Your task to perform on an android device: Go to network settings Image 0: 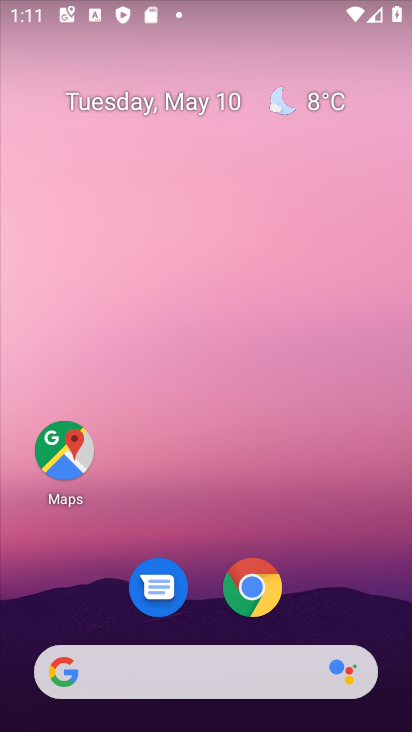
Step 0: drag from (392, 513) to (388, 309)
Your task to perform on an android device: Go to network settings Image 1: 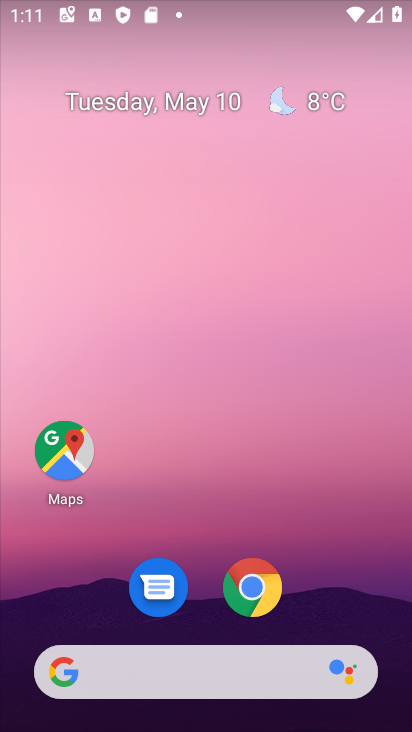
Step 1: drag from (386, 674) to (392, 203)
Your task to perform on an android device: Go to network settings Image 2: 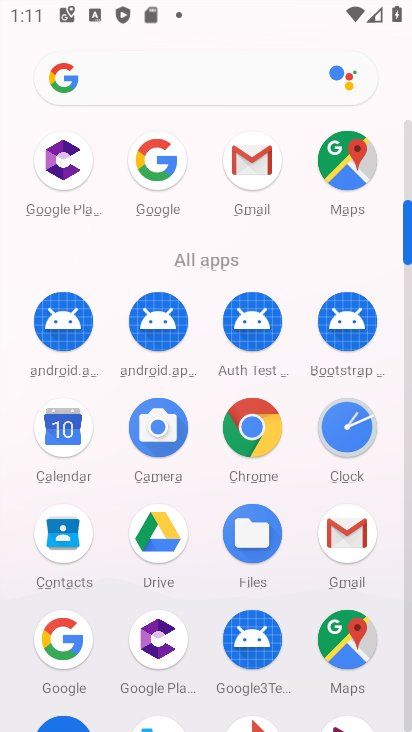
Step 2: drag from (409, 210) to (412, 147)
Your task to perform on an android device: Go to network settings Image 3: 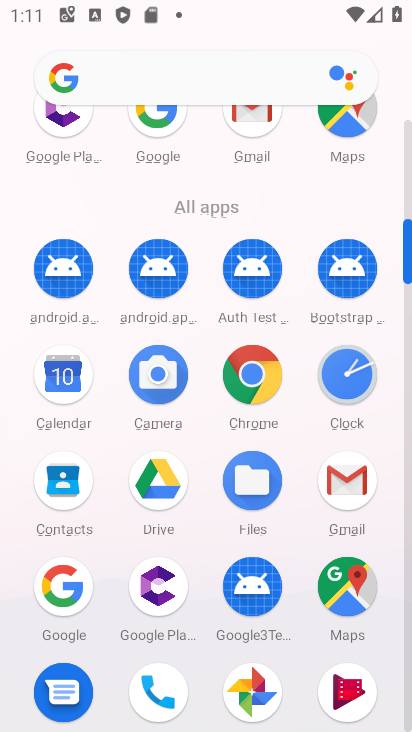
Step 3: click (410, 226)
Your task to perform on an android device: Go to network settings Image 4: 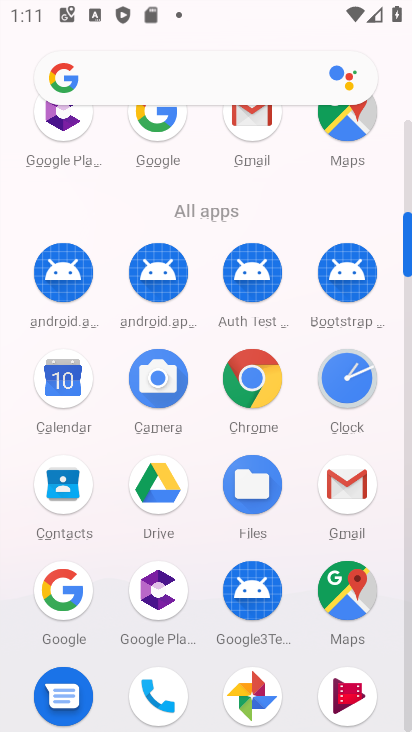
Step 4: drag from (408, 221) to (408, 135)
Your task to perform on an android device: Go to network settings Image 5: 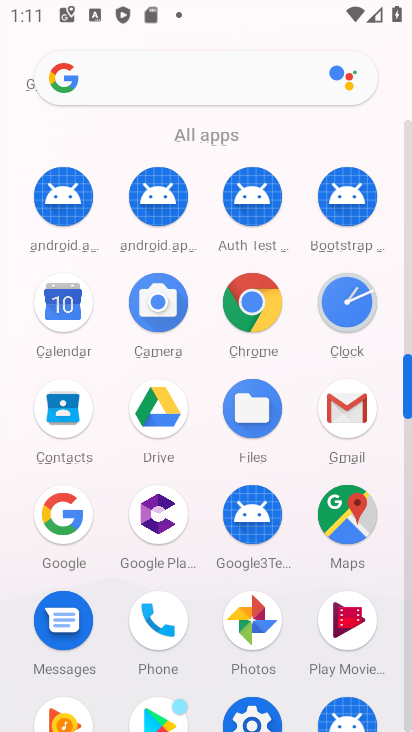
Step 5: click (243, 705)
Your task to perform on an android device: Go to network settings Image 6: 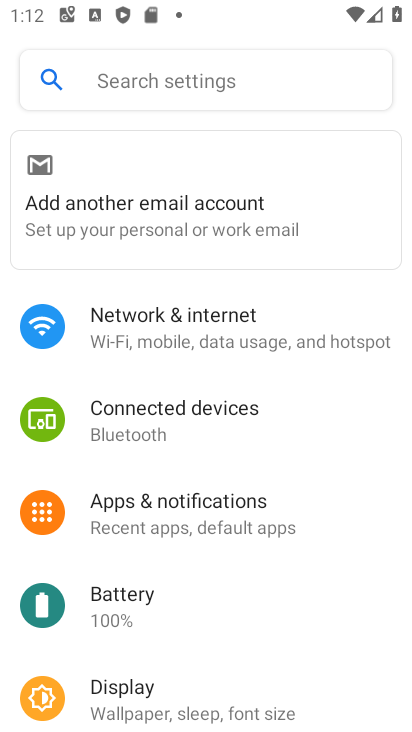
Step 6: drag from (384, 447) to (385, 367)
Your task to perform on an android device: Go to network settings Image 7: 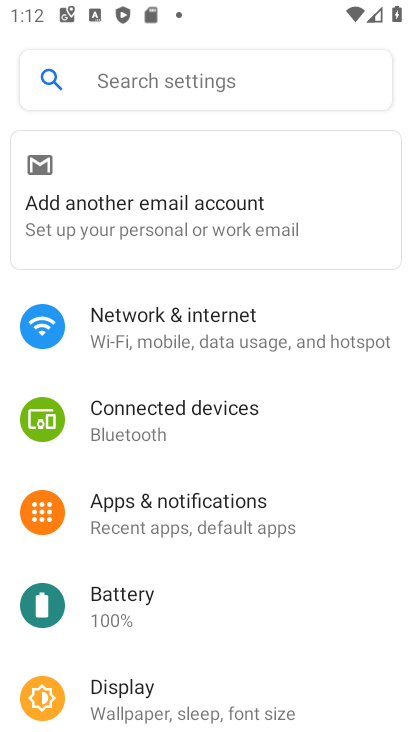
Step 7: drag from (373, 693) to (402, 427)
Your task to perform on an android device: Go to network settings Image 8: 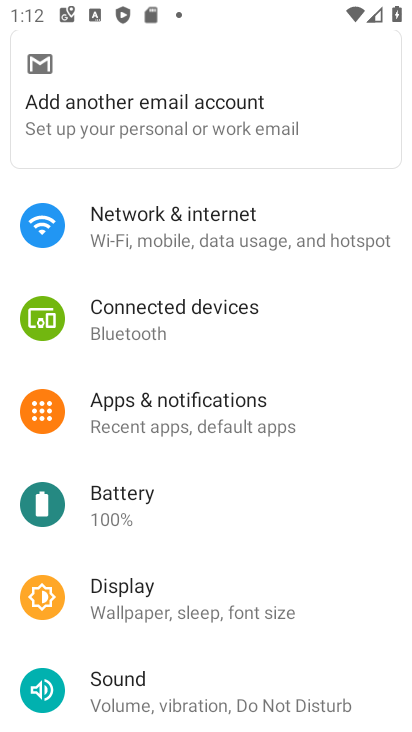
Step 8: drag from (342, 665) to (348, 418)
Your task to perform on an android device: Go to network settings Image 9: 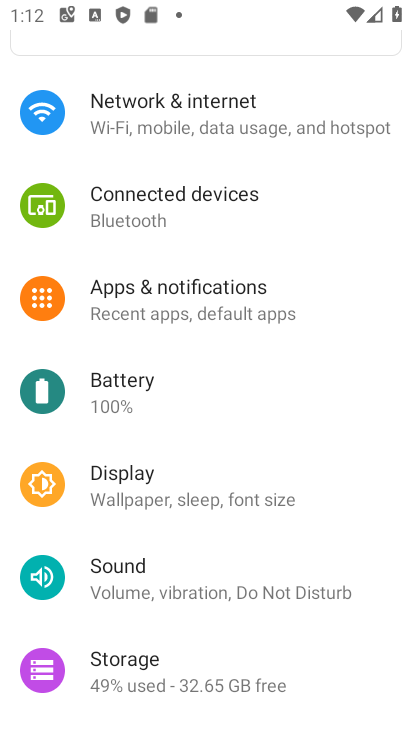
Step 9: click (398, 356)
Your task to perform on an android device: Go to network settings Image 10: 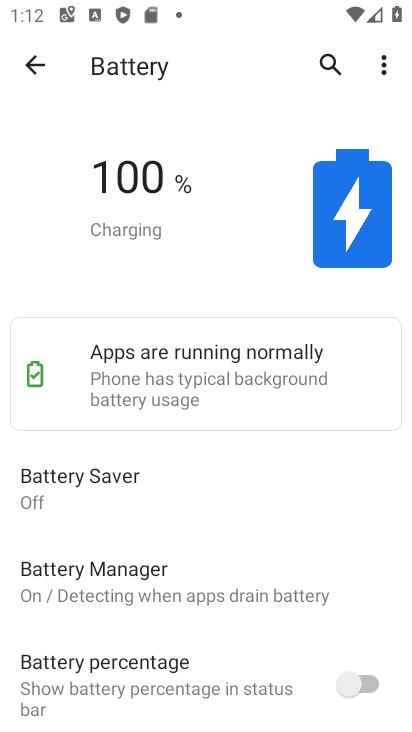
Step 10: click (40, 63)
Your task to perform on an android device: Go to network settings Image 11: 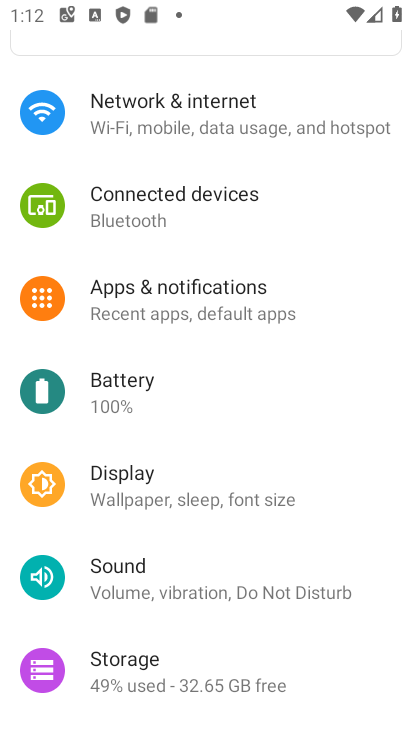
Step 11: click (171, 120)
Your task to perform on an android device: Go to network settings Image 12: 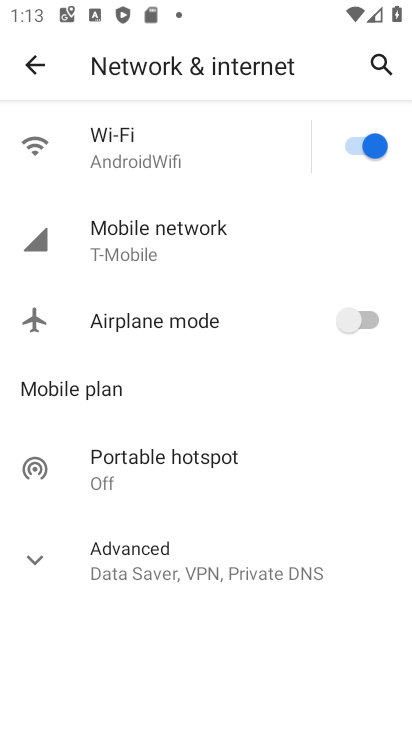
Step 12: click (114, 236)
Your task to perform on an android device: Go to network settings Image 13: 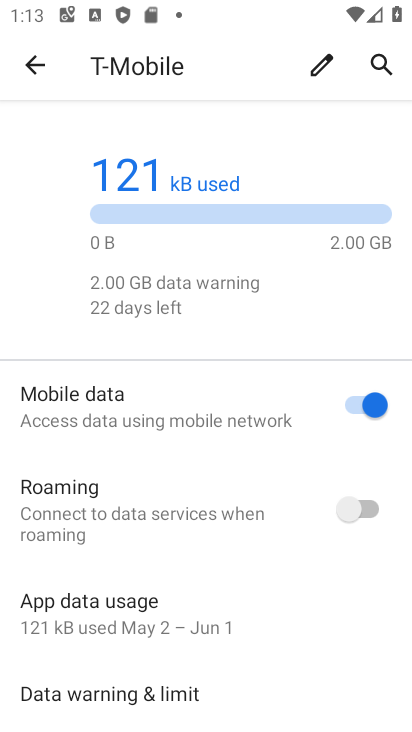
Step 13: task complete